Your task to perform on an android device: Open Yahoo.com Image 0: 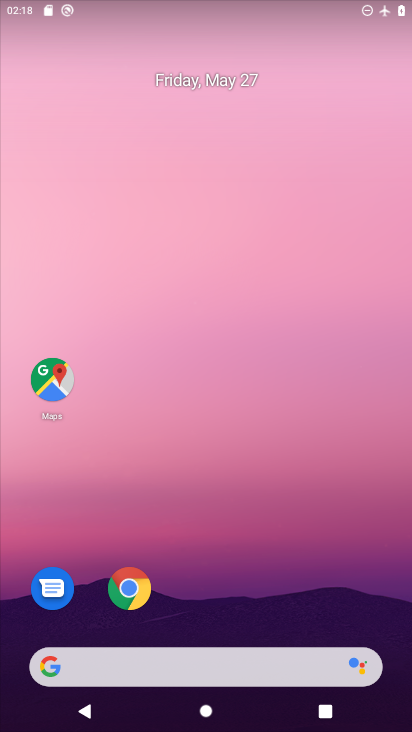
Step 0: click (131, 587)
Your task to perform on an android device: Open Yahoo.com Image 1: 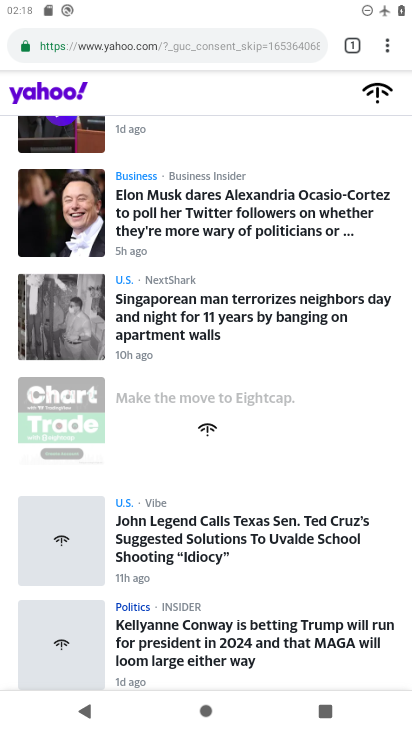
Step 1: task complete